Your task to perform on an android device: Go to internet settings Image 0: 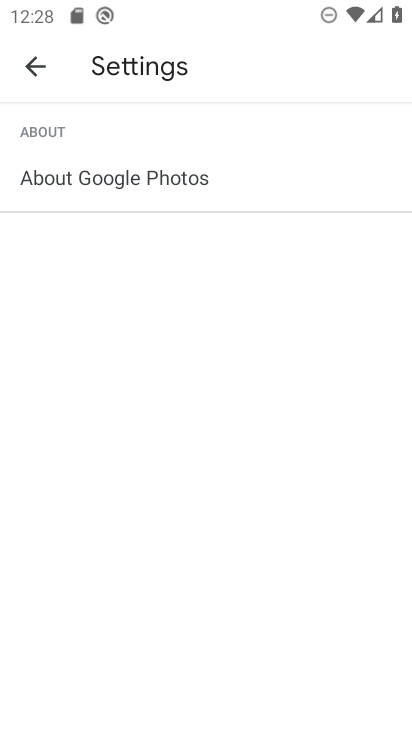
Step 0: drag from (308, 601) to (291, 89)
Your task to perform on an android device: Go to internet settings Image 1: 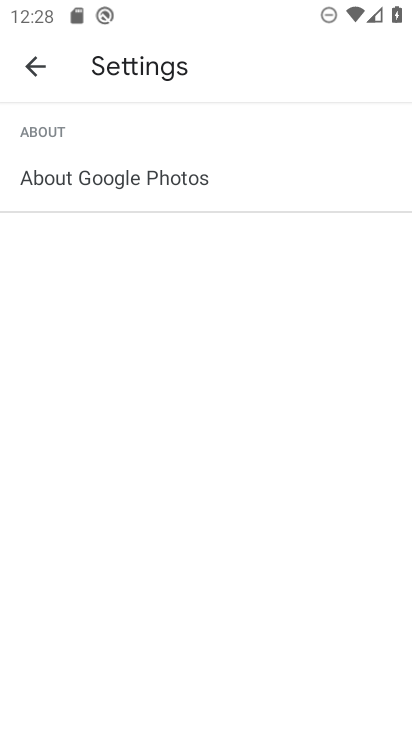
Step 1: press home button
Your task to perform on an android device: Go to internet settings Image 2: 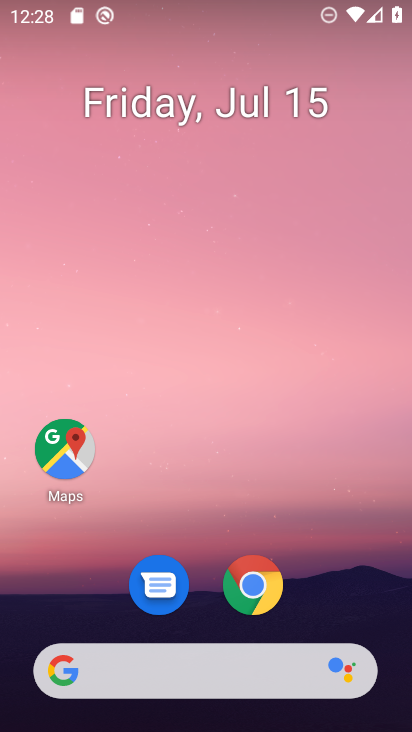
Step 2: drag from (176, 517) to (219, 2)
Your task to perform on an android device: Go to internet settings Image 3: 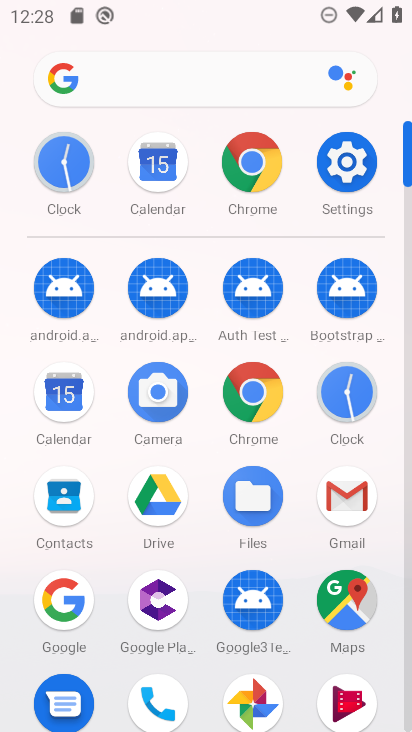
Step 3: click (346, 161)
Your task to perform on an android device: Go to internet settings Image 4: 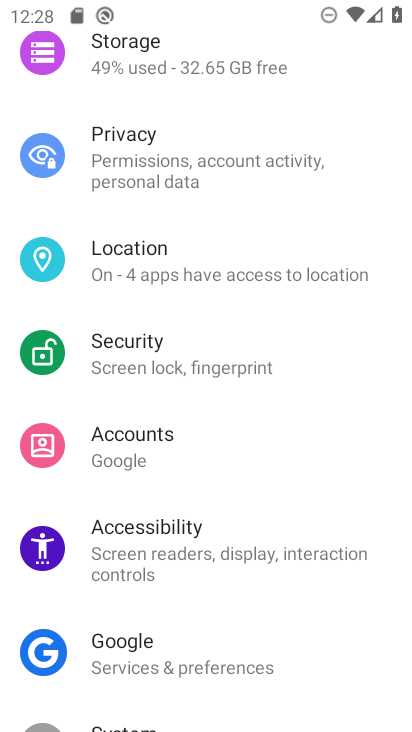
Step 4: drag from (202, 138) to (200, 731)
Your task to perform on an android device: Go to internet settings Image 5: 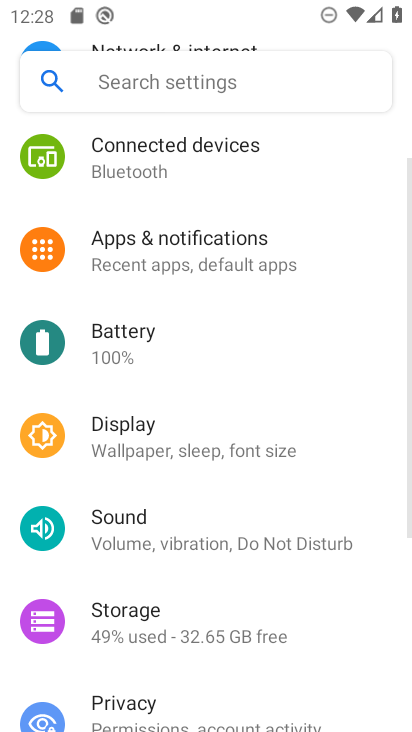
Step 5: drag from (253, 241) to (254, 586)
Your task to perform on an android device: Go to internet settings Image 6: 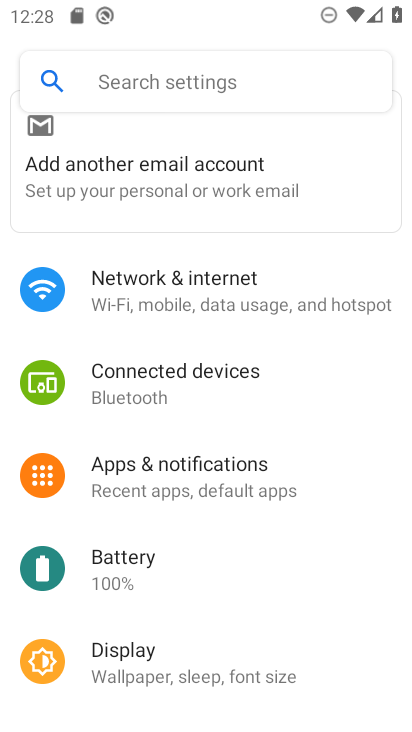
Step 6: click (238, 303)
Your task to perform on an android device: Go to internet settings Image 7: 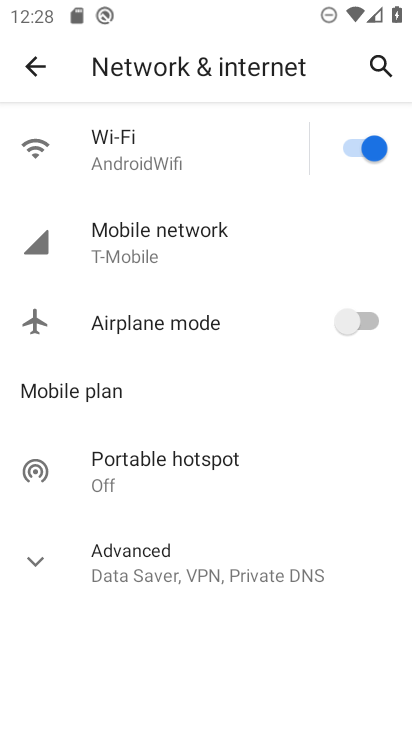
Step 7: task complete